Your task to perform on an android device: Go to location settings Image 0: 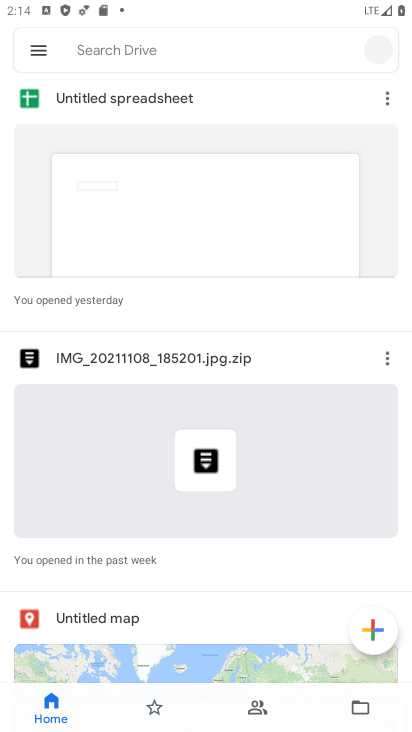
Step 0: press home button
Your task to perform on an android device: Go to location settings Image 1: 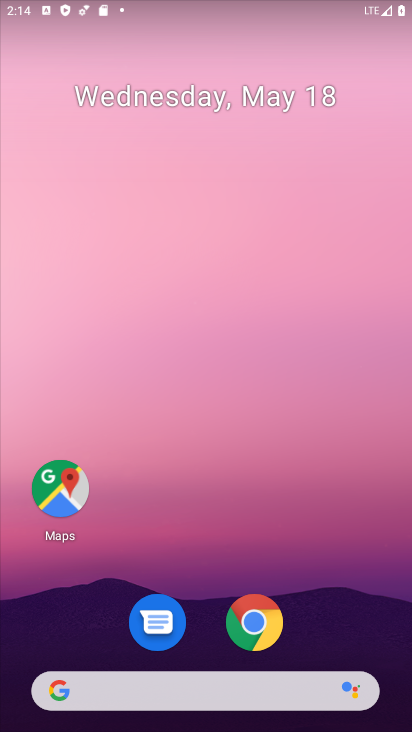
Step 1: drag from (209, 650) to (209, 270)
Your task to perform on an android device: Go to location settings Image 2: 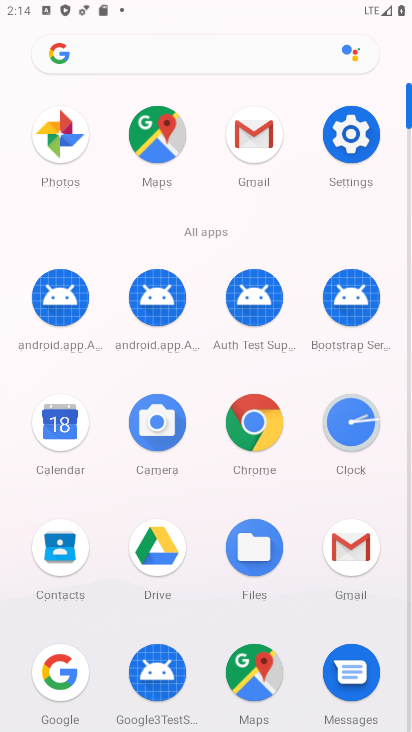
Step 2: click (338, 137)
Your task to perform on an android device: Go to location settings Image 3: 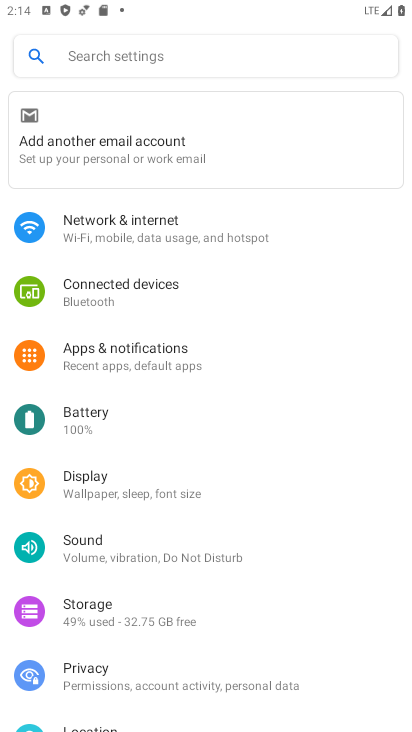
Step 3: drag from (153, 615) to (189, 359)
Your task to perform on an android device: Go to location settings Image 4: 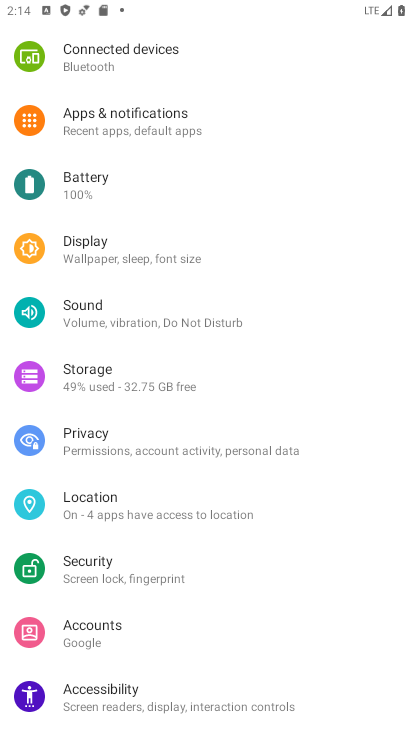
Step 4: click (121, 487)
Your task to perform on an android device: Go to location settings Image 5: 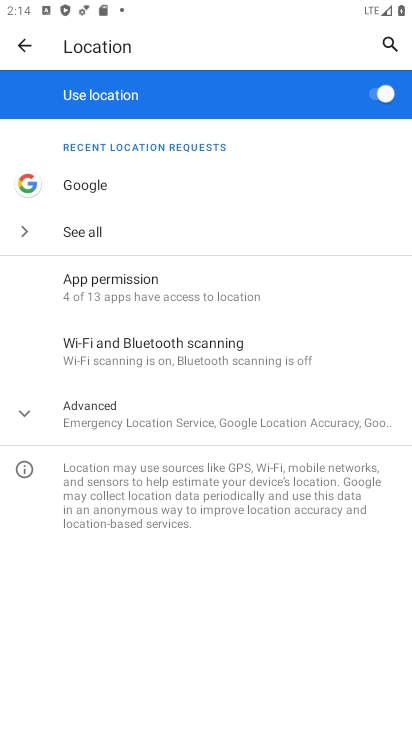
Step 5: task complete